Your task to perform on an android device: Open wifi settings Image 0: 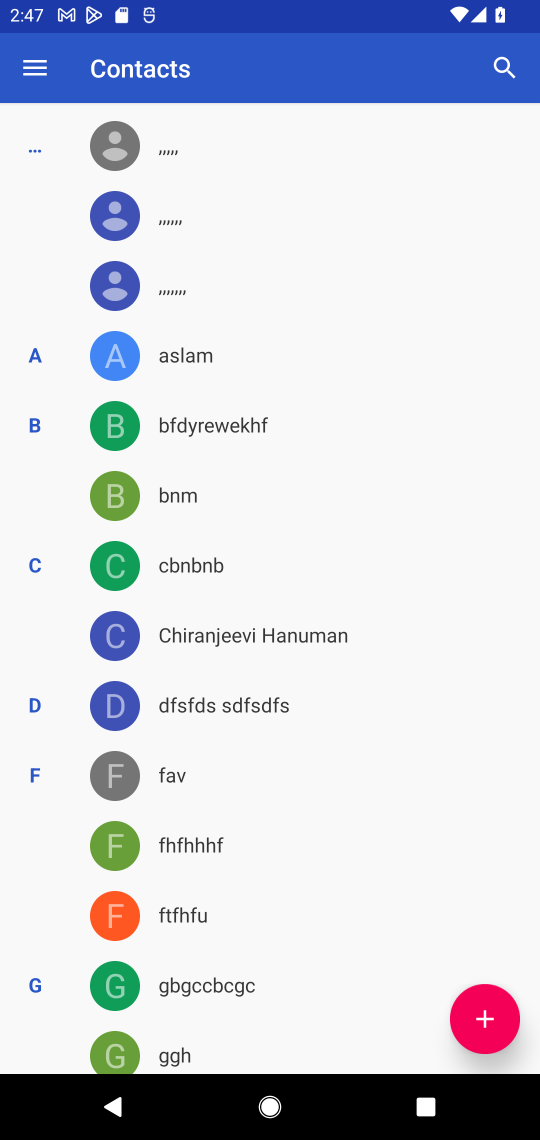
Step 0: press home button
Your task to perform on an android device: Open wifi settings Image 1: 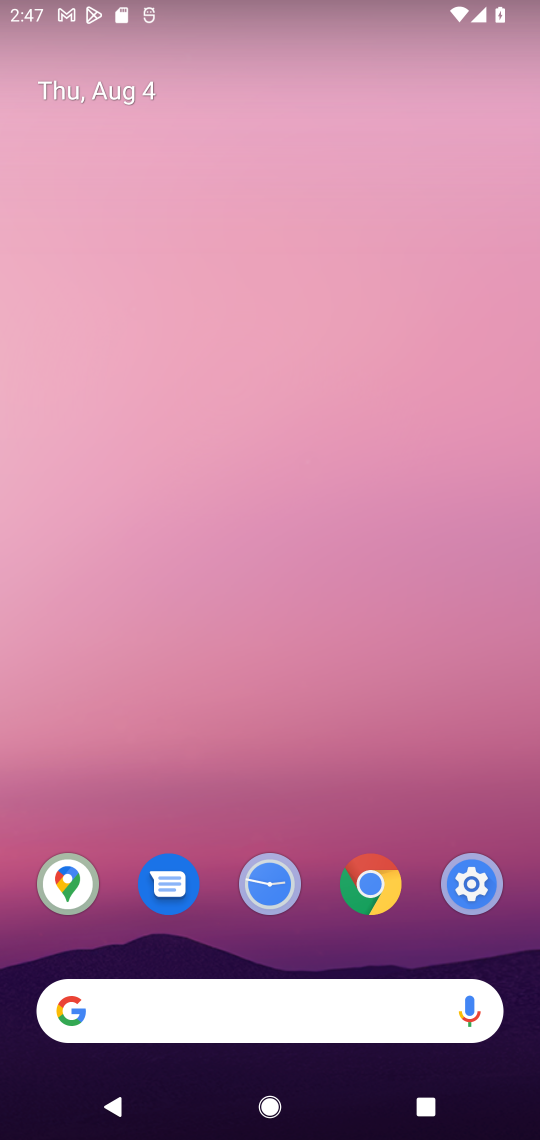
Step 1: click (481, 902)
Your task to perform on an android device: Open wifi settings Image 2: 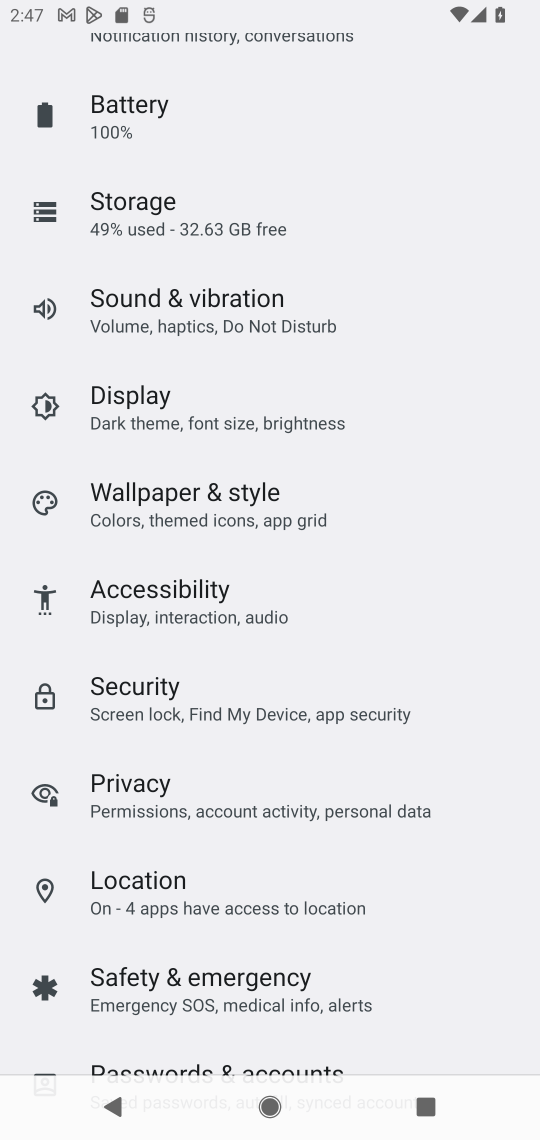
Step 2: drag from (213, 181) to (192, 576)
Your task to perform on an android device: Open wifi settings Image 3: 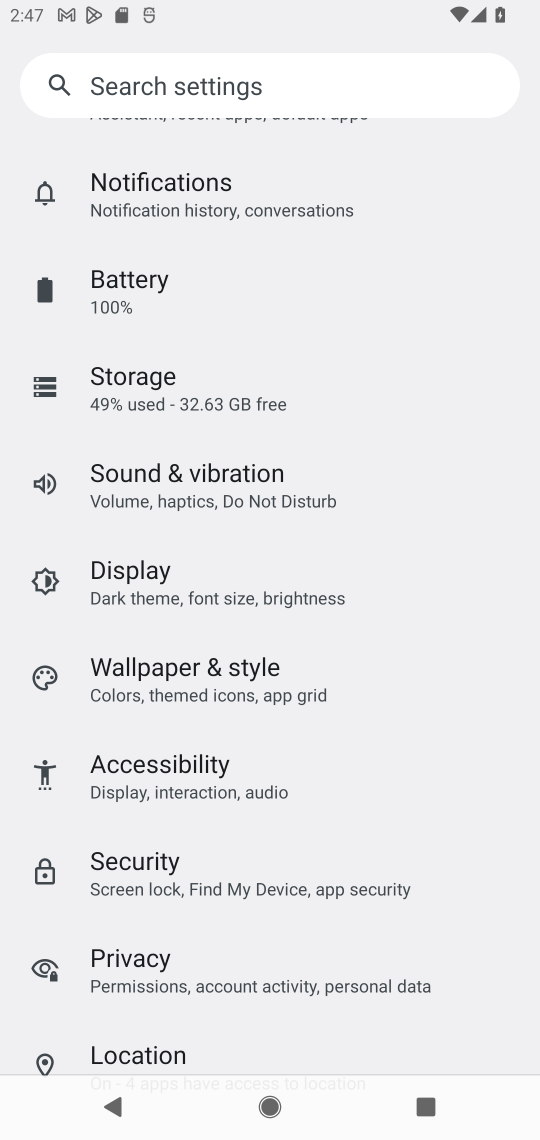
Step 3: drag from (122, 211) to (181, 705)
Your task to perform on an android device: Open wifi settings Image 4: 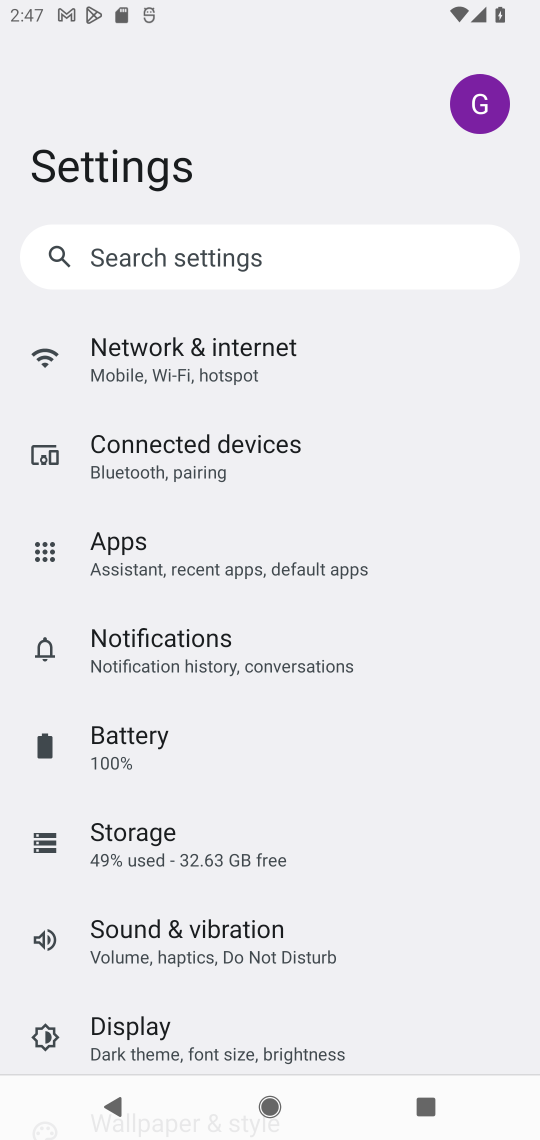
Step 4: click (146, 393)
Your task to perform on an android device: Open wifi settings Image 5: 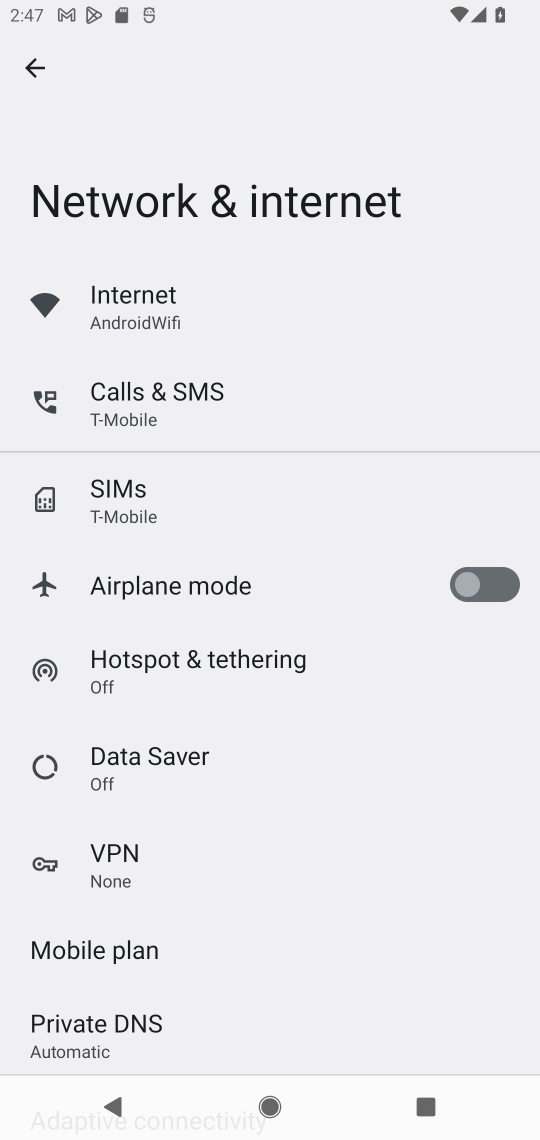
Step 5: task complete